Your task to perform on an android device: Empty the shopping cart on walmart.com. Add logitech g pro to the cart on walmart.com Image 0: 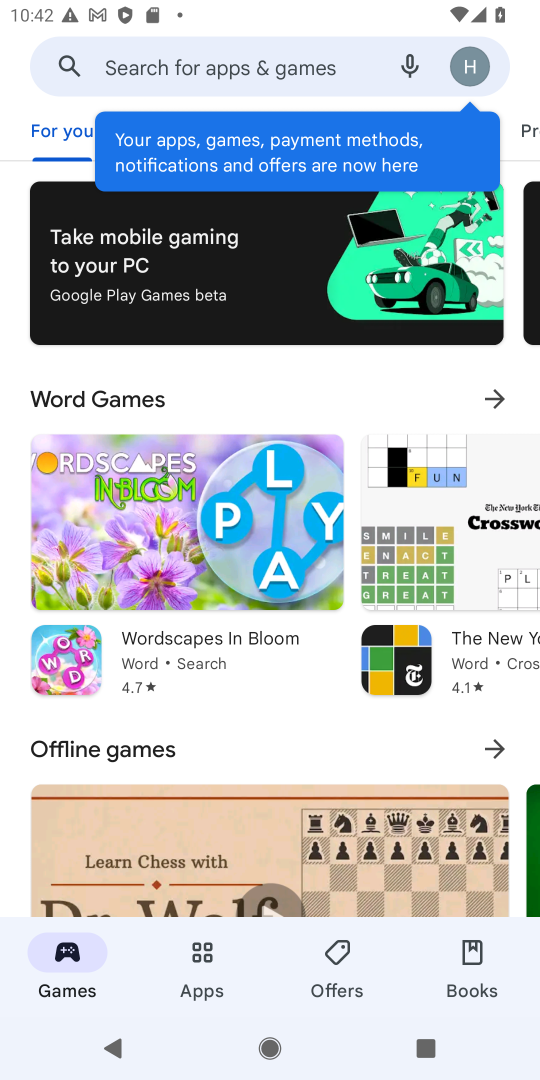
Step 0: press home button
Your task to perform on an android device: Empty the shopping cart on walmart.com. Add logitech g pro to the cart on walmart.com Image 1: 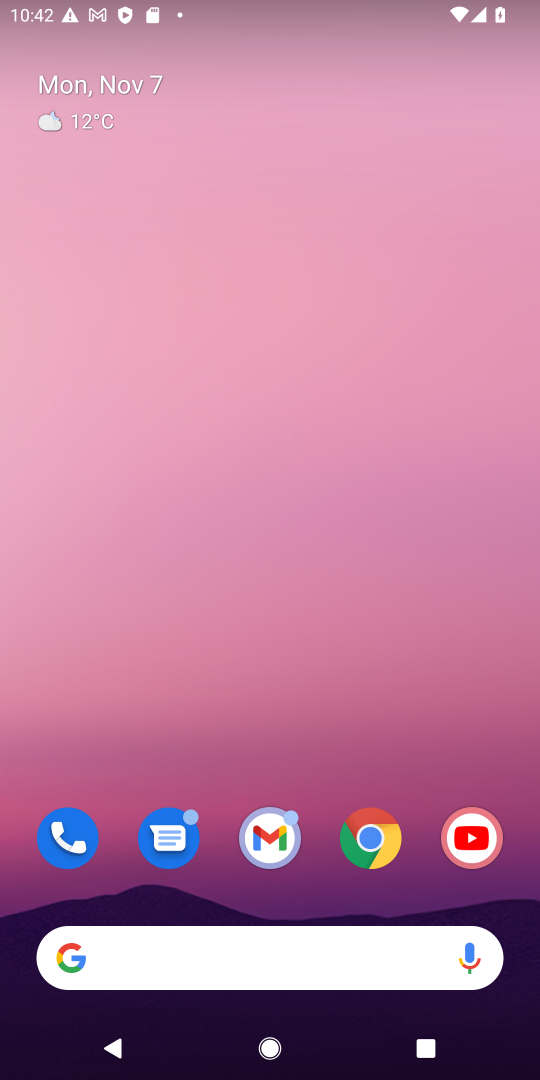
Step 1: click (381, 834)
Your task to perform on an android device: Empty the shopping cart on walmart.com. Add logitech g pro to the cart on walmart.com Image 2: 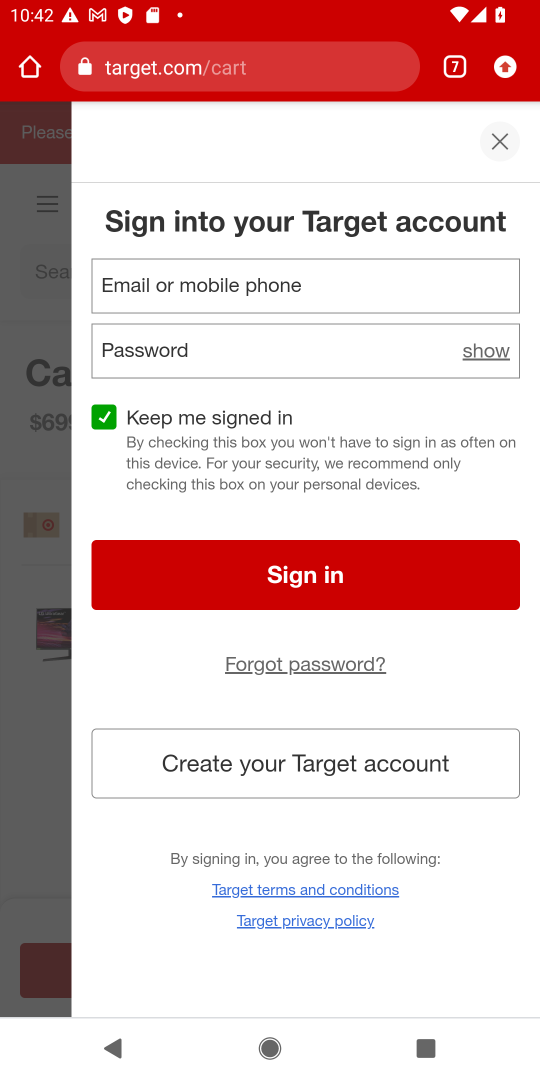
Step 2: click (457, 63)
Your task to perform on an android device: Empty the shopping cart on walmart.com. Add logitech g pro to the cart on walmart.com Image 3: 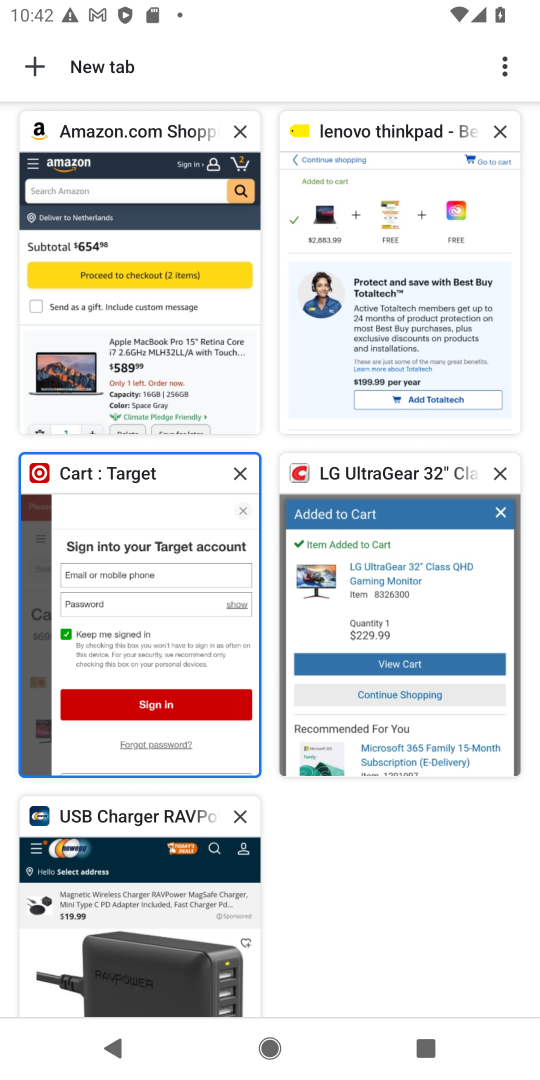
Step 3: drag from (249, 245) to (220, 956)
Your task to perform on an android device: Empty the shopping cart on walmart.com. Add logitech g pro to the cart on walmart.com Image 4: 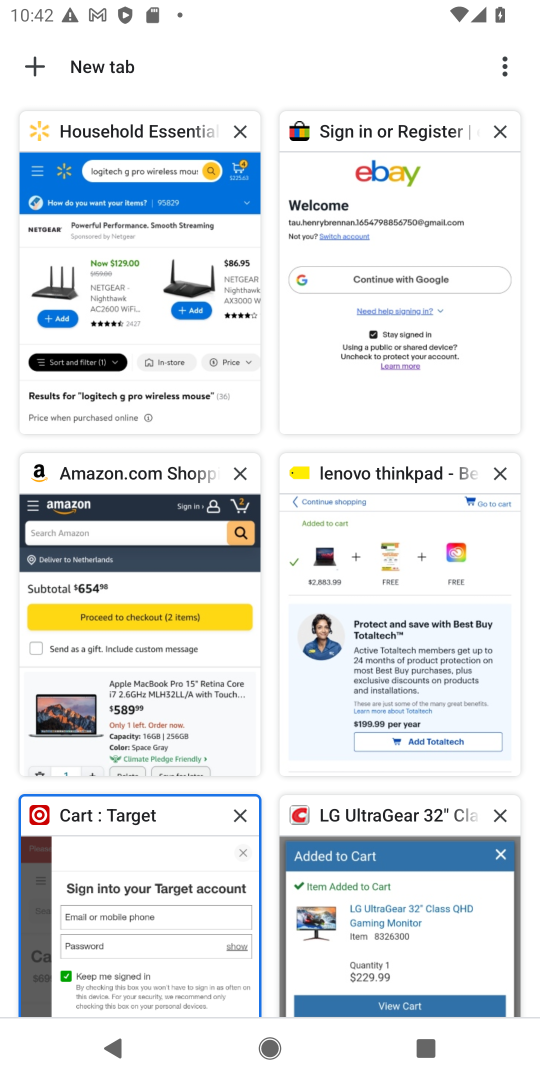
Step 4: click (153, 252)
Your task to perform on an android device: Empty the shopping cart on walmart.com. Add logitech g pro to the cart on walmart.com Image 5: 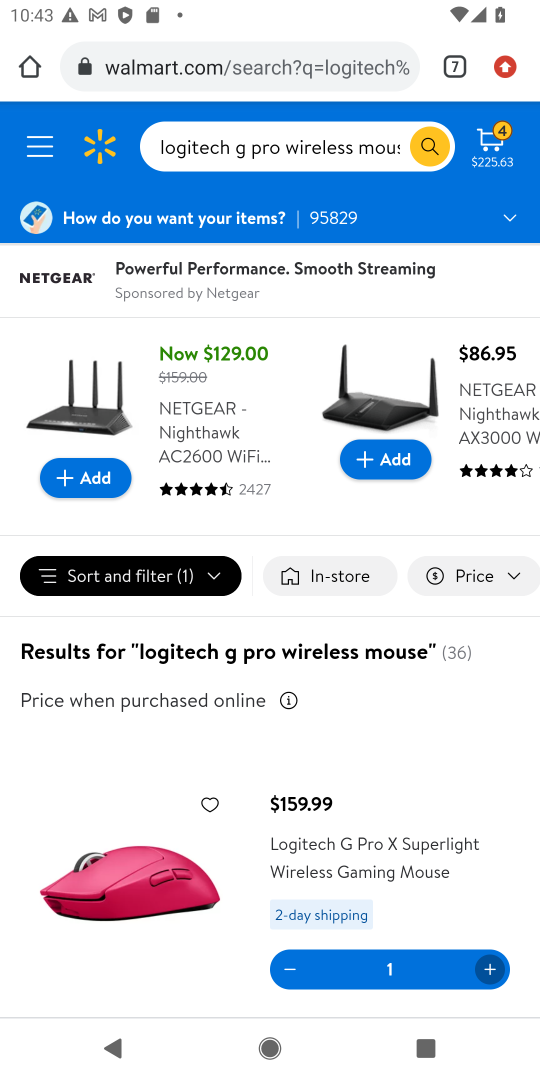
Step 5: click (495, 130)
Your task to perform on an android device: Empty the shopping cart on walmart.com. Add logitech g pro to the cart on walmart.com Image 6: 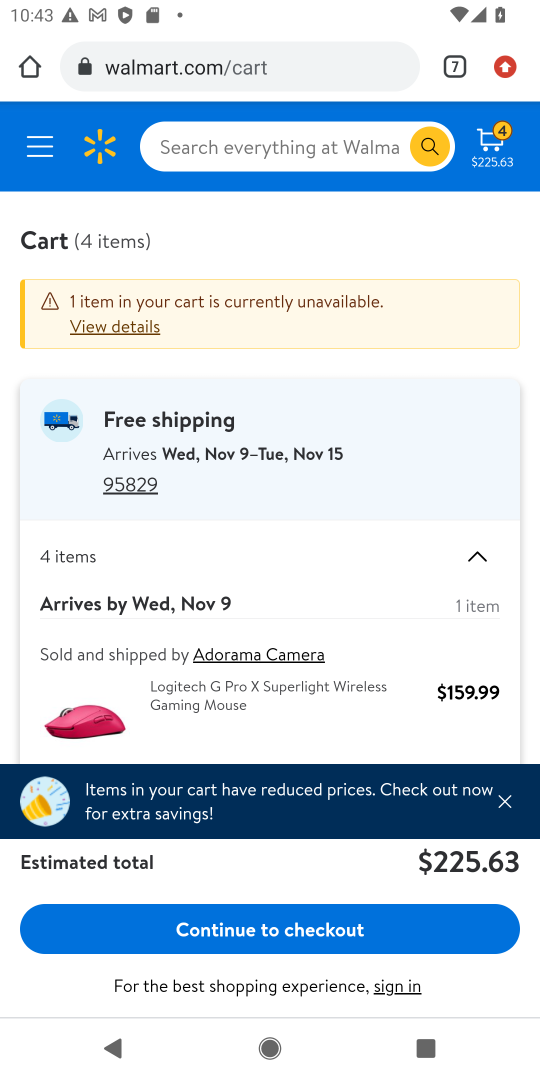
Step 6: click (508, 805)
Your task to perform on an android device: Empty the shopping cart on walmart.com. Add logitech g pro to the cart on walmart.com Image 7: 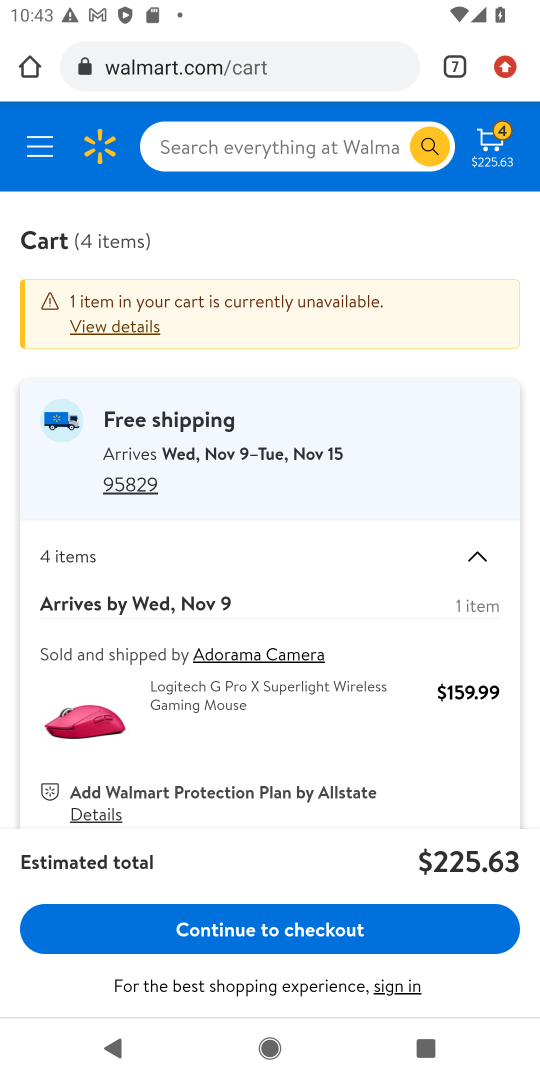
Step 7: drag from (378, 668) to (384, 446)
Your task to perform on an android device: Empty the shopping cart on walmart.com. Add logitech g pro to the cart on walmart.com Image 8: 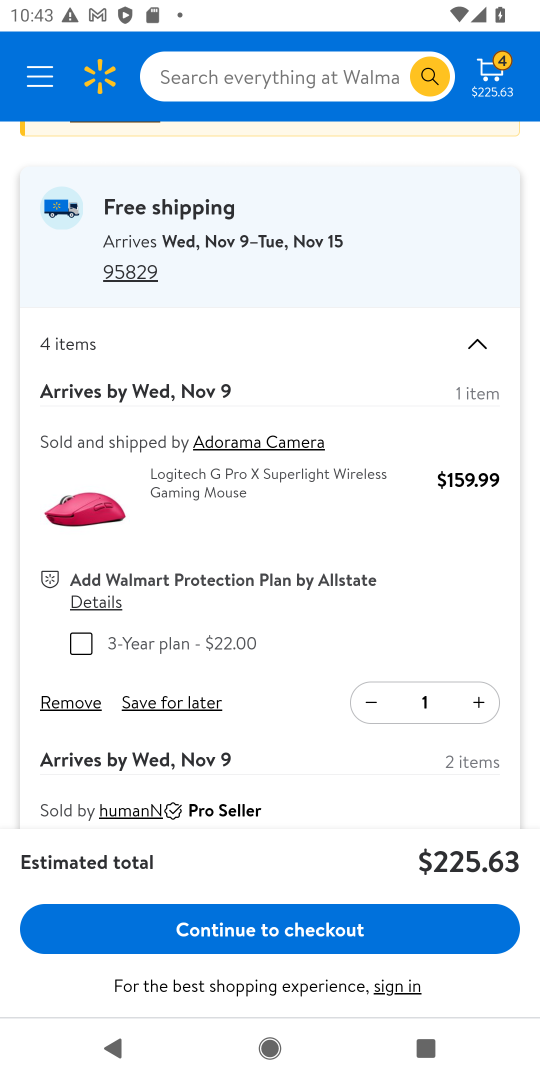
Step 8: click (52, 702)
Your task to perform on an android device: Empty the shopping cart on walmart.com. Add logitech g pro to the cart on walmart.com Image 9: 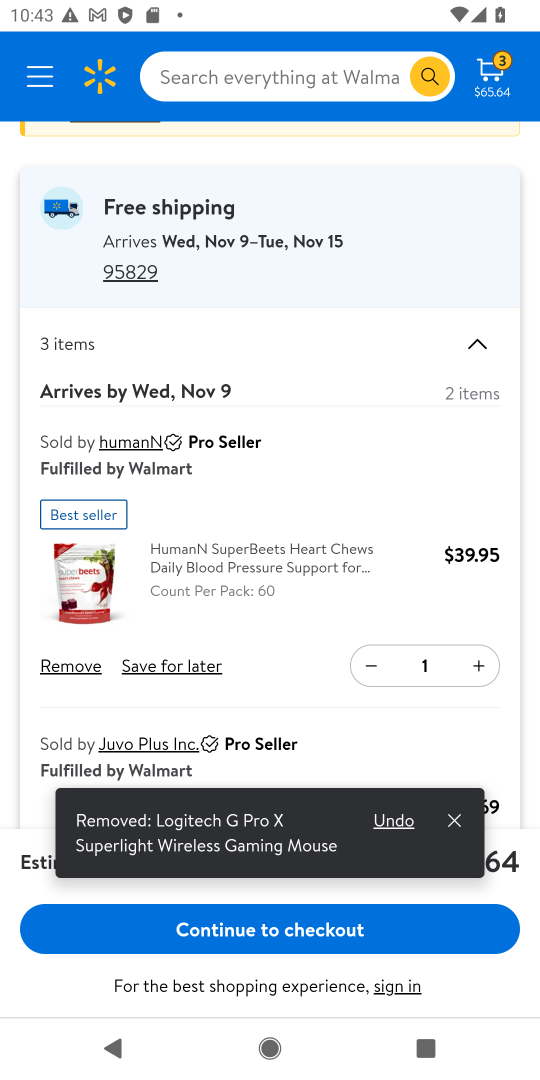
Step 9: click (63, 670)
Your task to perform on an android device: Empty the shopping cart on walmart.com. Add logitech g pro to the cart on walmart.com Image 10: 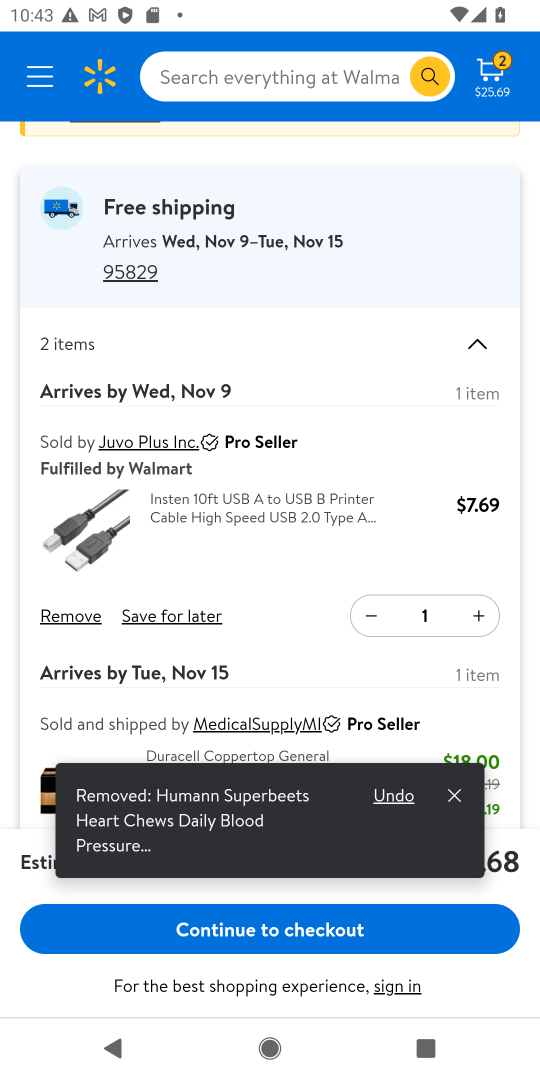
Step 10: click (73, 619)
Your task to perform on an android device: Empty the shopping cart on walmart.com. Add logitech g pro to the cart on walmart.com Image 11: 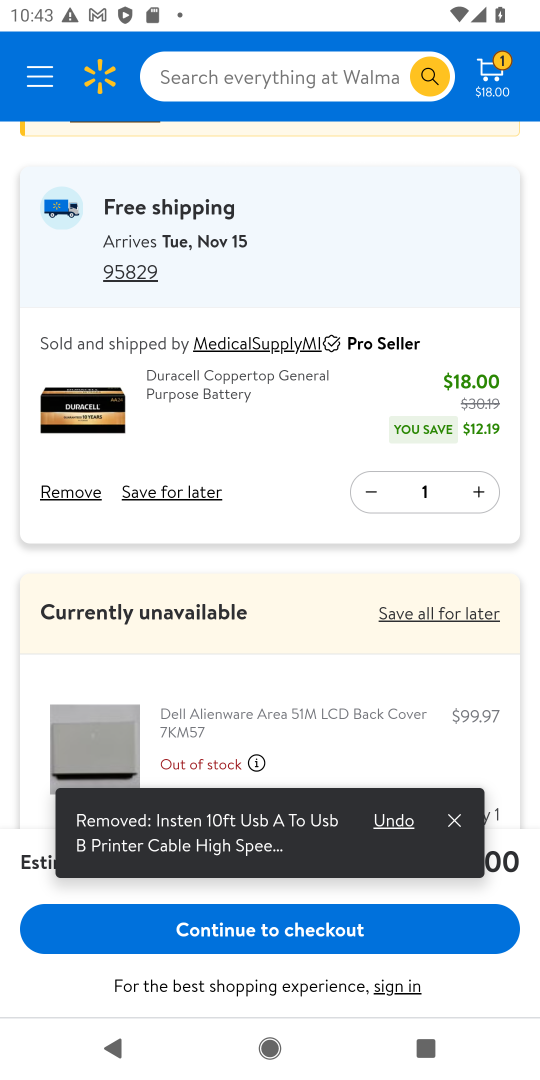
Step 11: click (80, 491)
Your task to perform on an android device: Empty the shopping cart on walmart.com. Add logitech g pro to the cart on walmart.com Image 12: 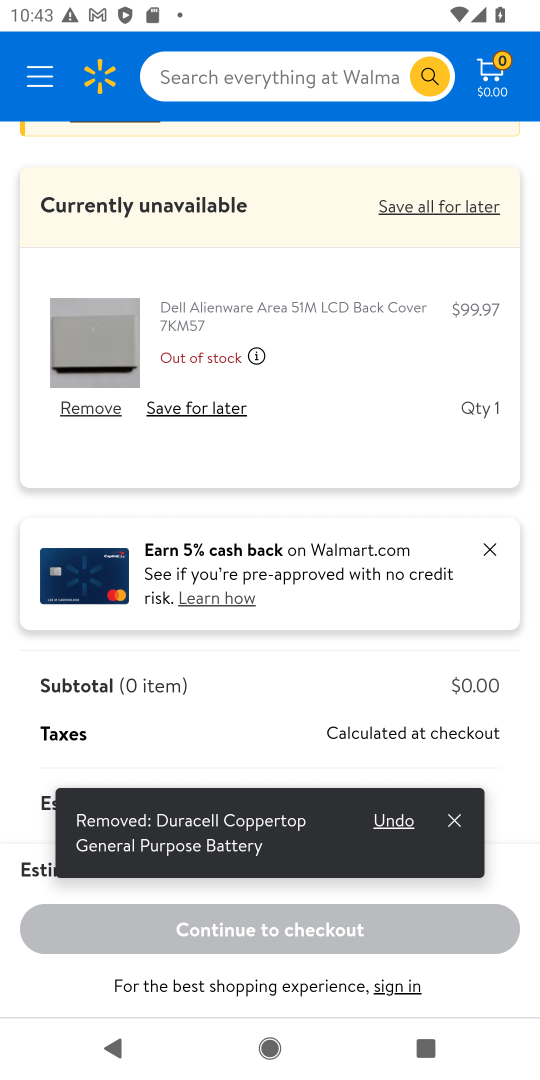
Step 12: click (83, 415)
Your task to perform on an android device: Empty the shopping cart on walmart.com. Add logitech g pro to the cart on walmart.com Image 13: 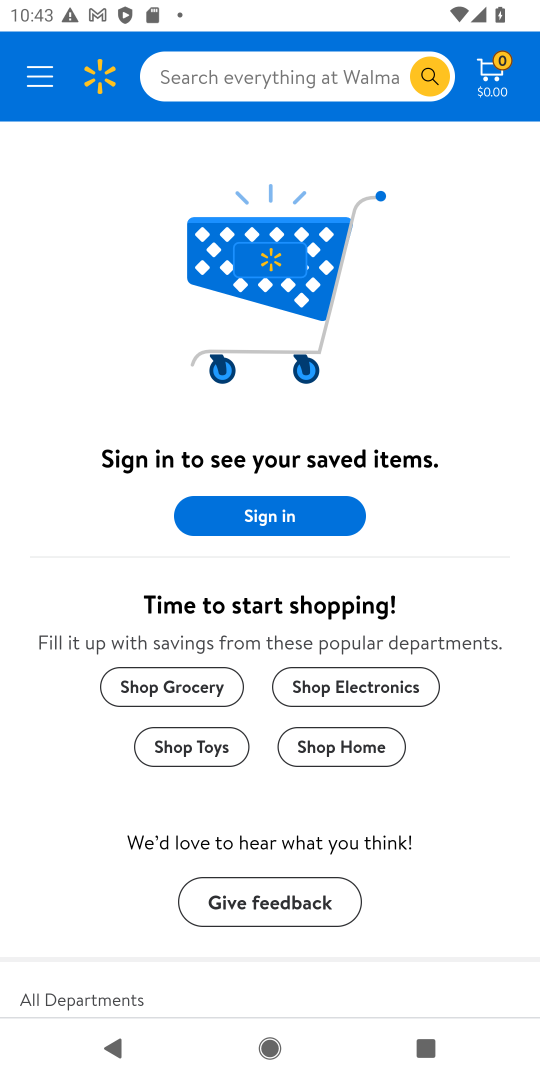
Step 13: click (316, 72)
Your task to perform on an android device: Empty the shopping cart on walmart.com. Add logitech g pro to the cart on walmart.com Image 14: 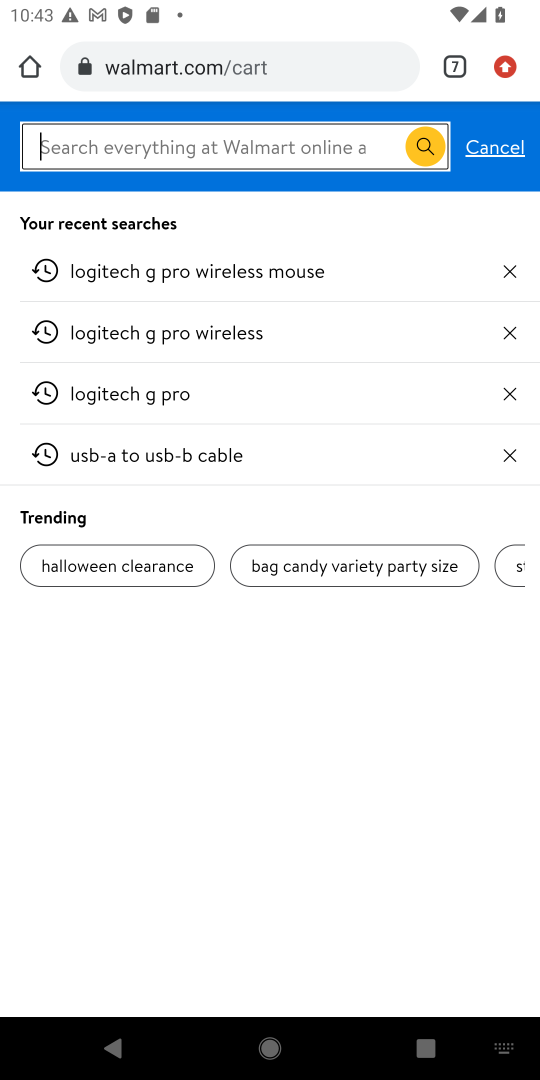
Step 14: type "logitech g pro"
Your task to perform on an android device: Empty the shopping cart on walmart.com. Add logitech g pro to the cart on walmart.com Image 15: 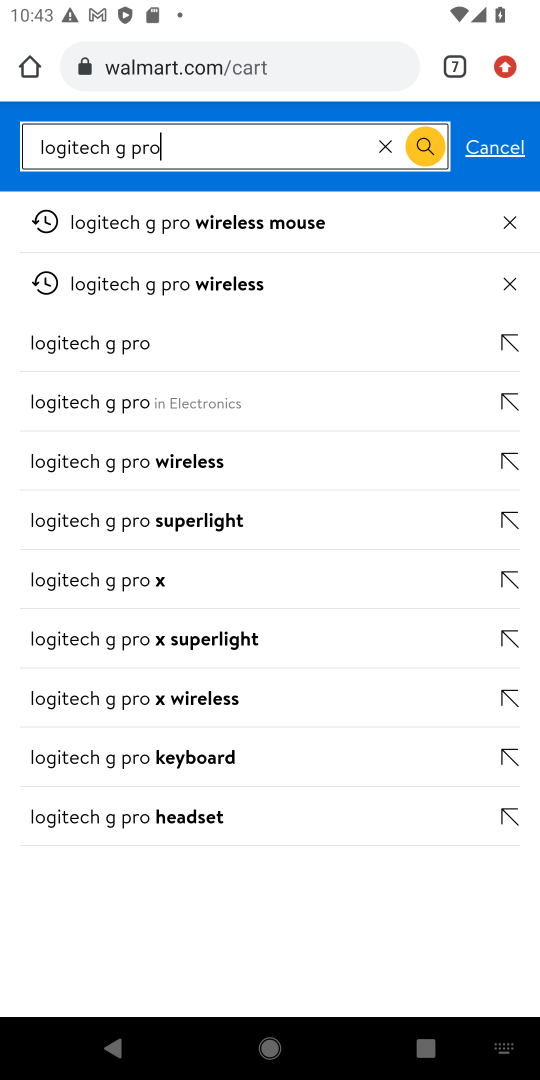
Step 15: click (183, 226)
Your task to perform on an android device: Empty the shopping cart on walmart.com. Add logitech g pro to the cart on walmart.com Image 16: 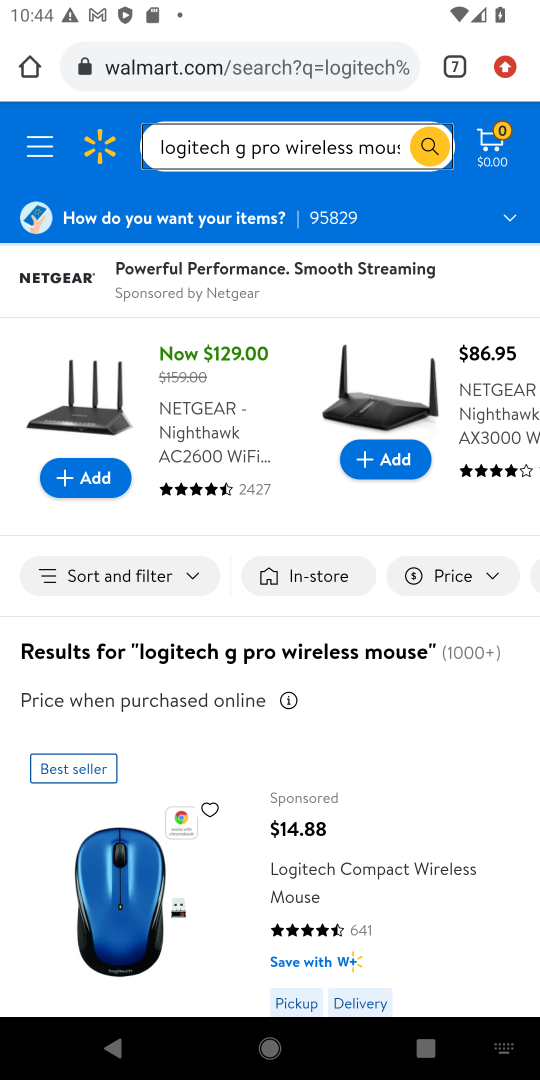
Step 16: drag from (400, 924) to (436, 515)
Your task to perform on an android device: Empty the shopping cart on walmart.com. Add logitech g pro to the cart on walmart.com Image 17: 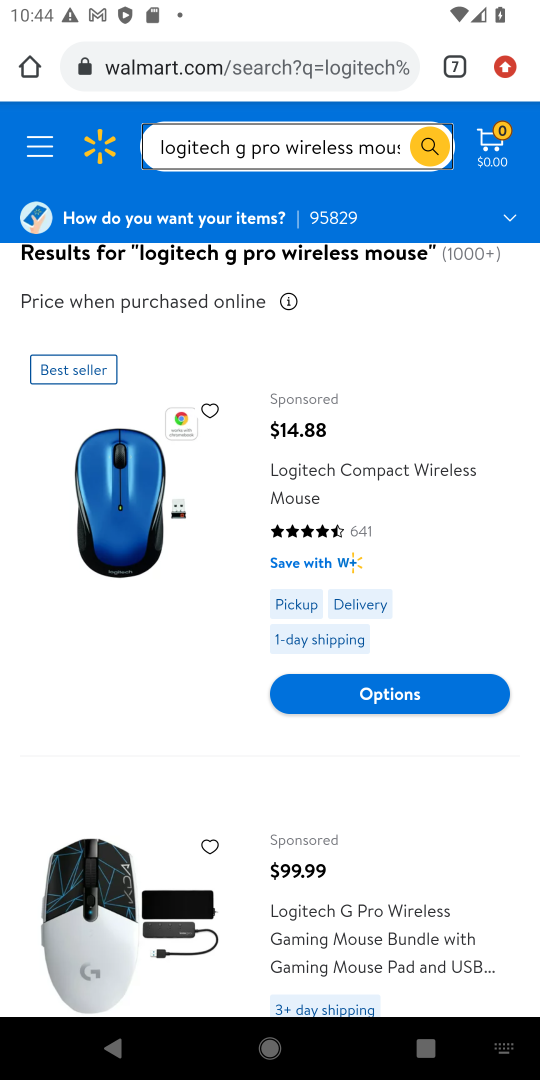
Step 17: click (363, 518)
Your task to perform on an android device: Empty the shopping cart on walmart.com. Add logitech g pro to the cart on walmart.com Image 18: 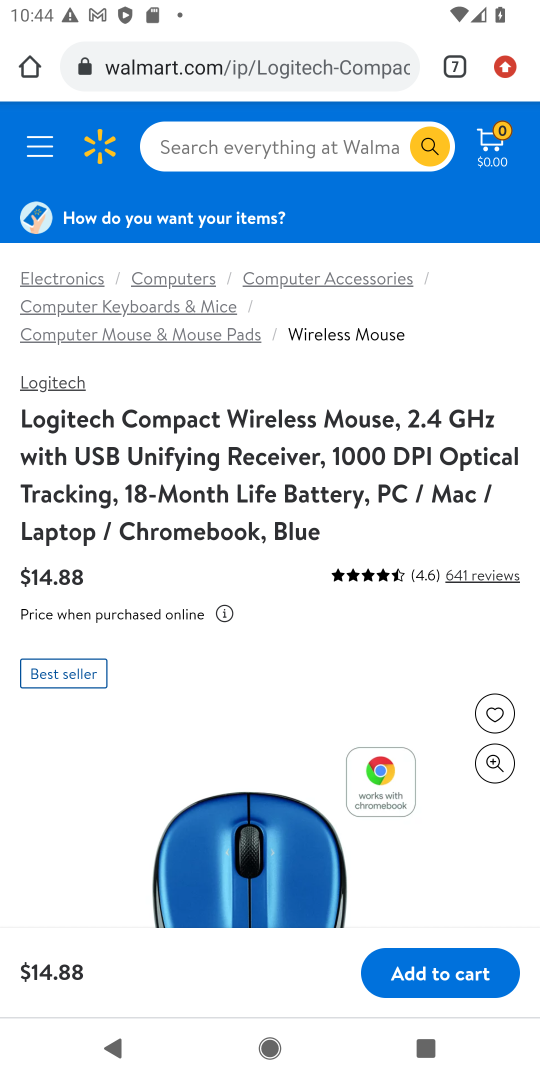
Step 18: click (442, 980)
Your task to perform on an android device: Empty the shopping cart on walmart.com. Add logitech g pro to the cart on walmart.com Image 19: 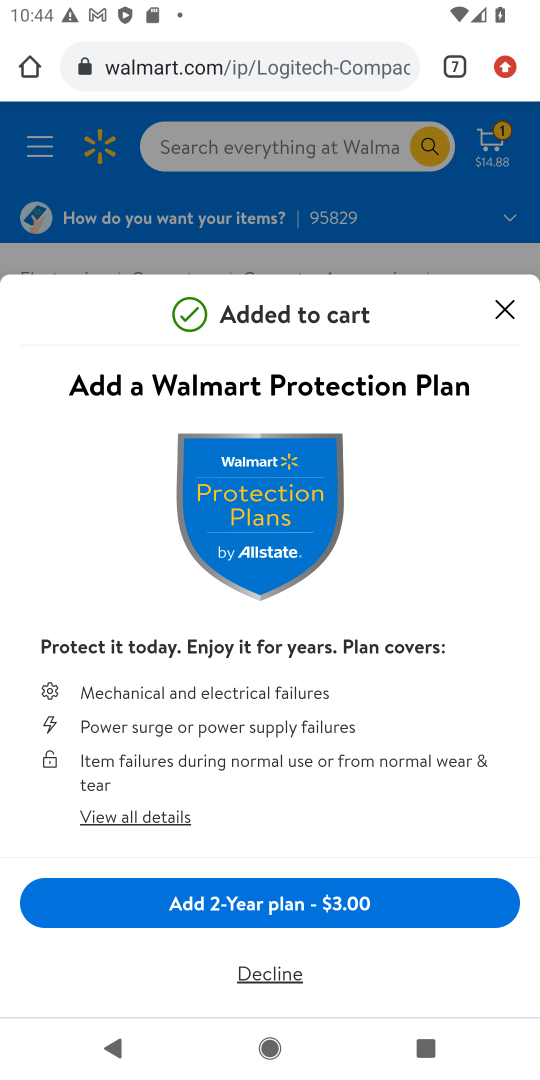
Step 19: task complete